Your task to perform on an android device: Toggle the flashlight Image 0: 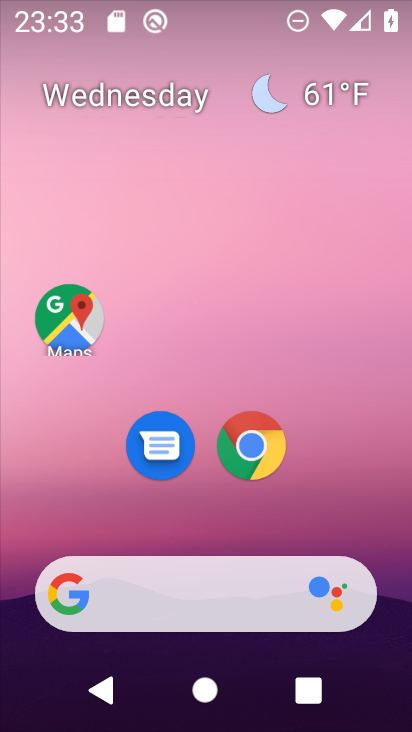
Step 0: drag from (362, 463) to (348, 154)
Your task to perform on an android device: Toggle the flashlight Image 1: 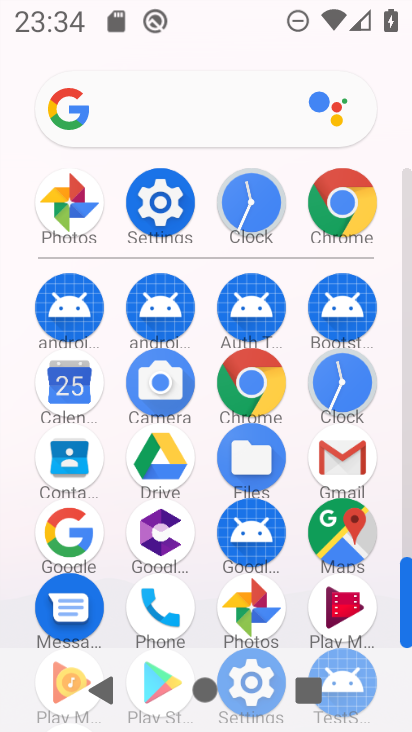
Step 1: click (171, 215)
Your task to perform on an android device: Toggle the flashlight Image 2: 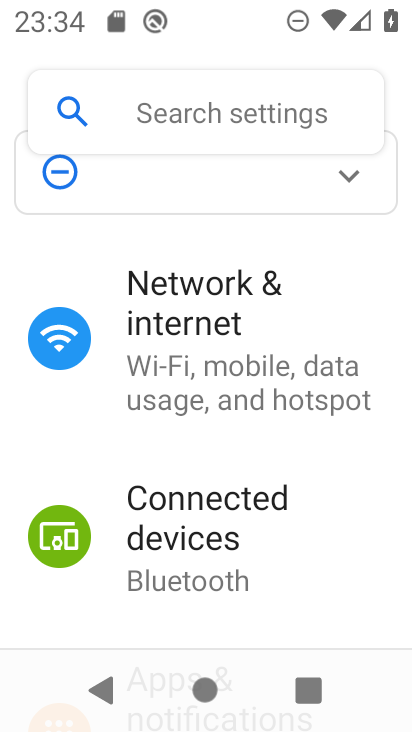
Step 2: click (222, 117)
Your task to perform on an android device: Toggle the flashlight Image 3: 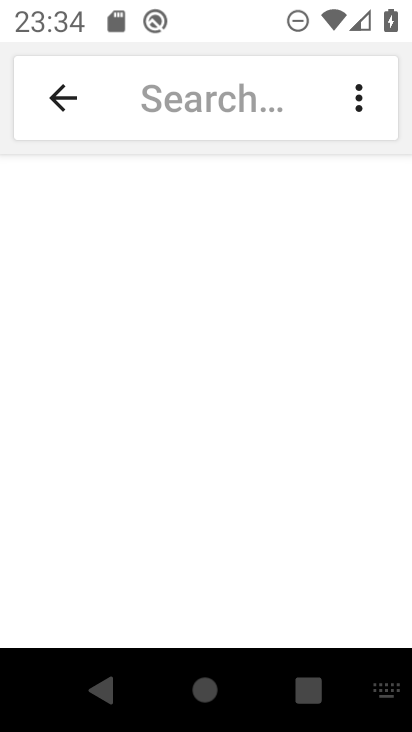
Step 3: type "flashlight "
Your task to perform on an android device: Toggle the flashlight Image 4: 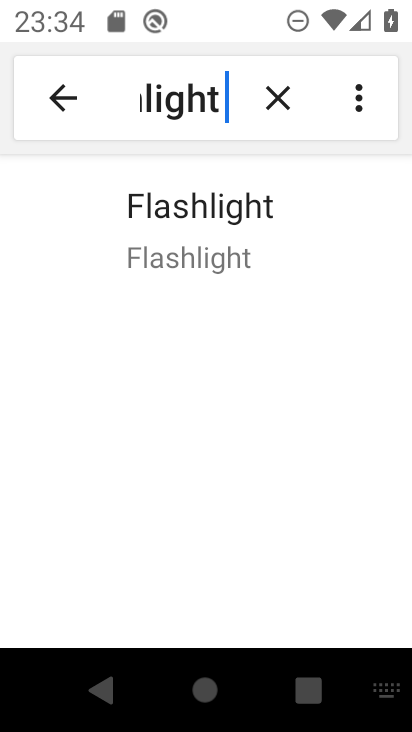
Step 4: click (181, 220)
Your task to perform on an android device: Toggle the flashlight Image 5: 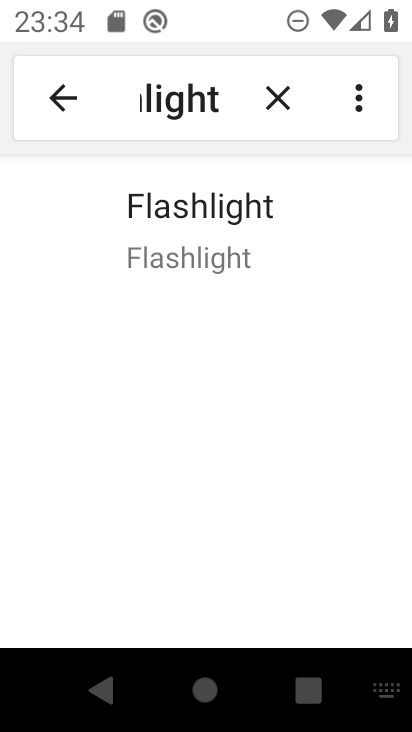
Step 5: task complete